Your task to perform on an android device: open app "Lyft - Rideshare, Bikes, Scooters & Transit" (install if not already installed) Image 0: 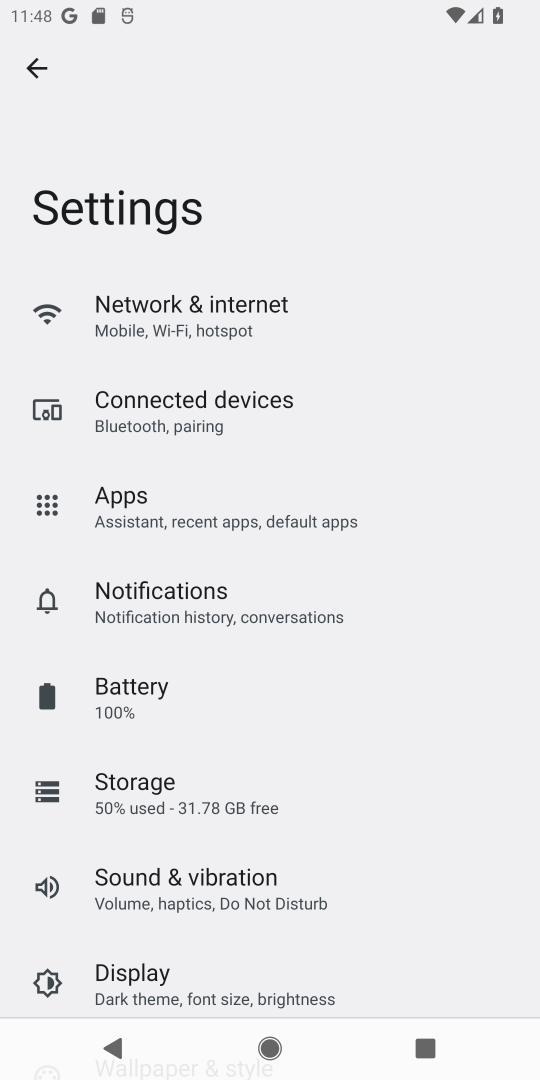
Step 0: press home button
Your task to perform on an android device: open app "Lyft - Rideshare, Bikes, Scooters & Transit" (install if not already installed) Image 1: 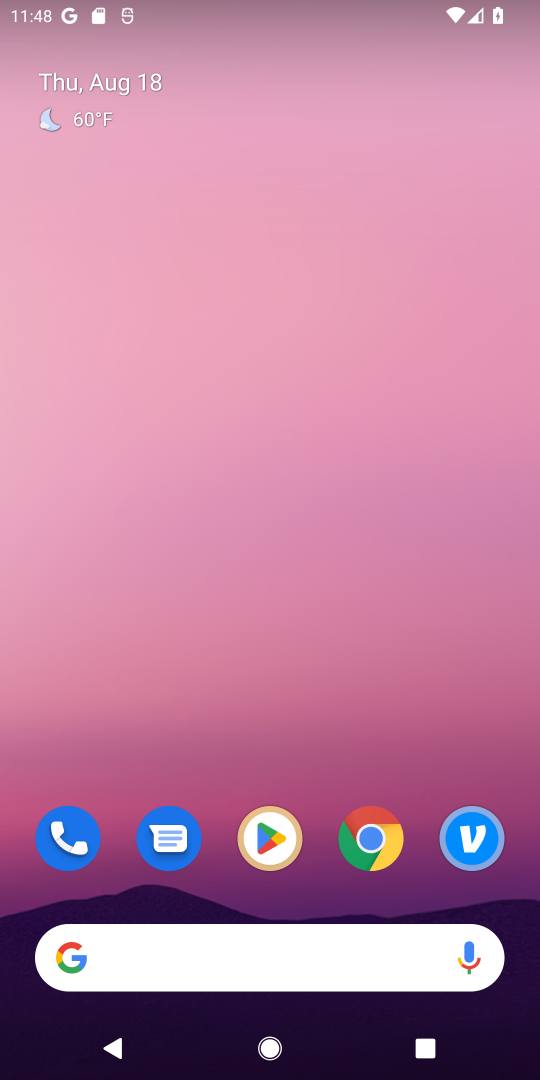
Step 1: click (275, 818)
Your task to perform on an android device: open app "Lyft - Rideshare, Bikes, Scooters & Transit" (install if not already installed) Image 2: 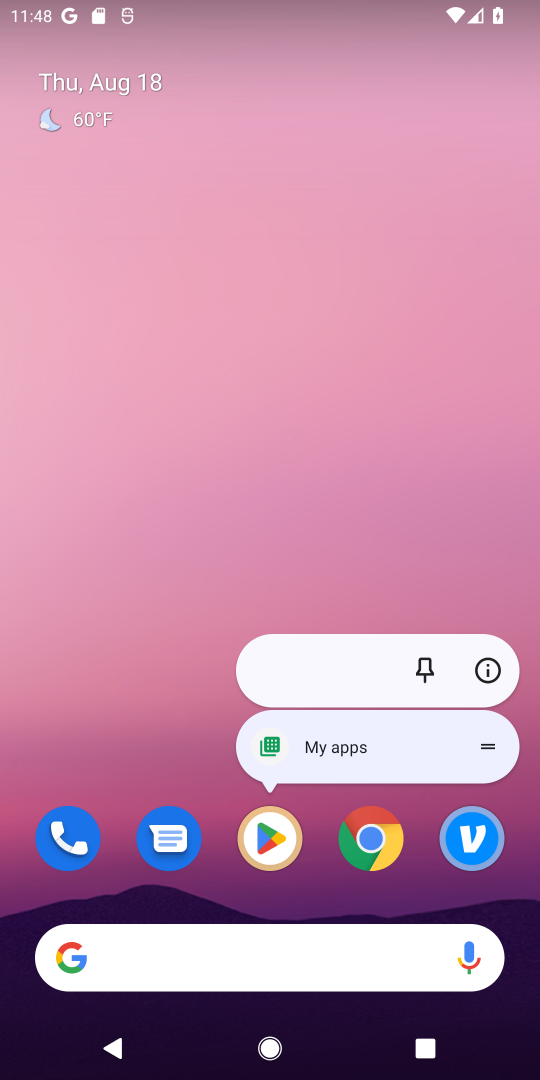
Step 2: click (283, 841)
Your task to perform on an android device: open app "Lyft - Rideshare, Bikes, Scooters & Transit" (install if not already installed) Image 3: 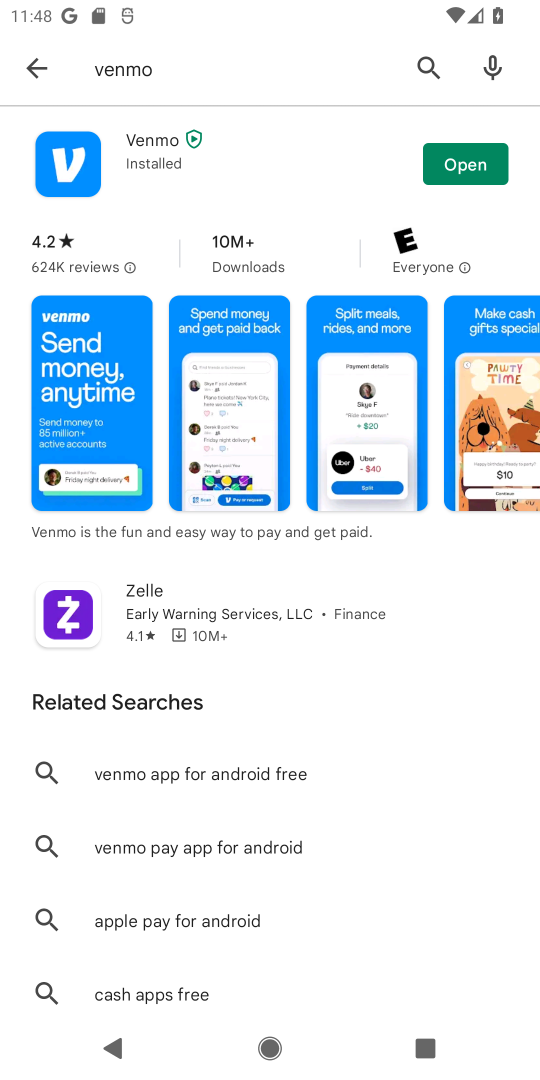
Step 3: click (477, 66)
Your task to perform on an android device: open app "Lyft - Rideshare, Bikes, Scooters & Transit" (install if not already installed) Image 4: 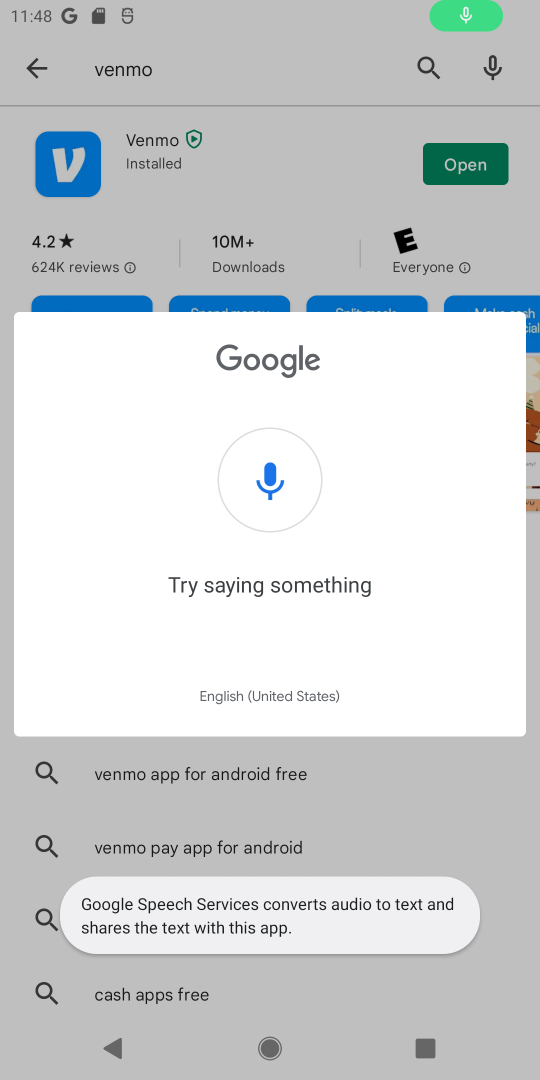
Step 4: click (431, 75)
Your task to perform on an android device: open app "Lyft - Rideshare, Bikes, Scooters & Transit" (install if not already installed) Image 5: 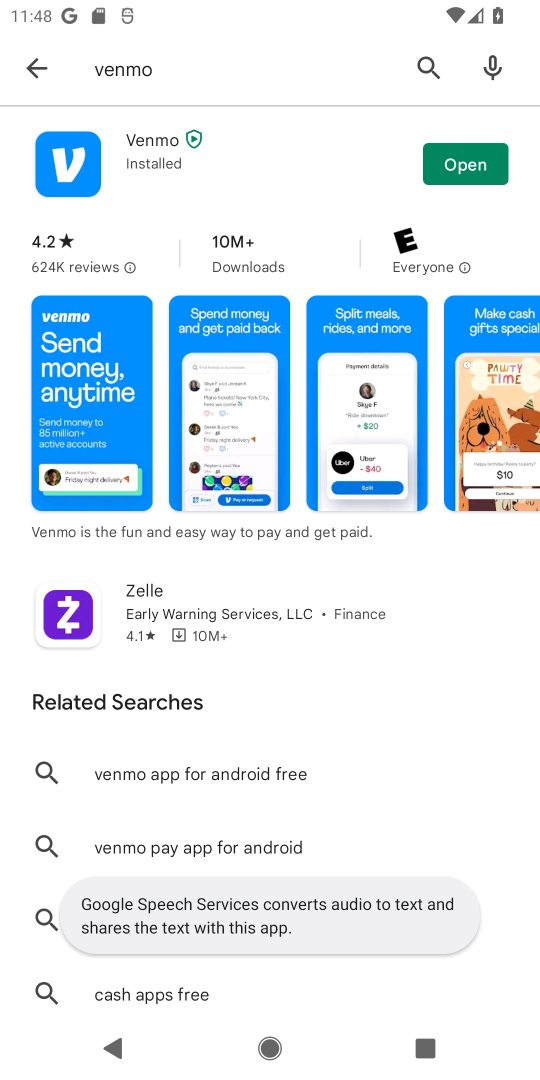
Step 5: click (430, 75)
Your task to perform on an android device: open app "Lyft - Rideshare, Bikes, Scooters & Transit" (install if not already installed) Image 6: 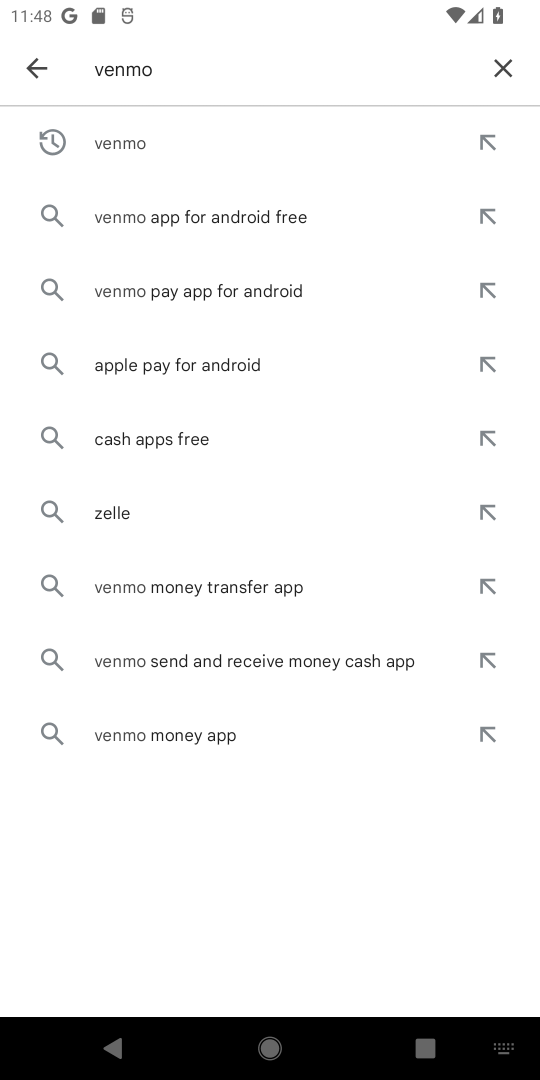
Step 6: click (499, 77)
Your task to perform on an android device: open app "Lyft - Rideshare, Bikes, Scooters & Transit" (install if not already installed) Image 7: 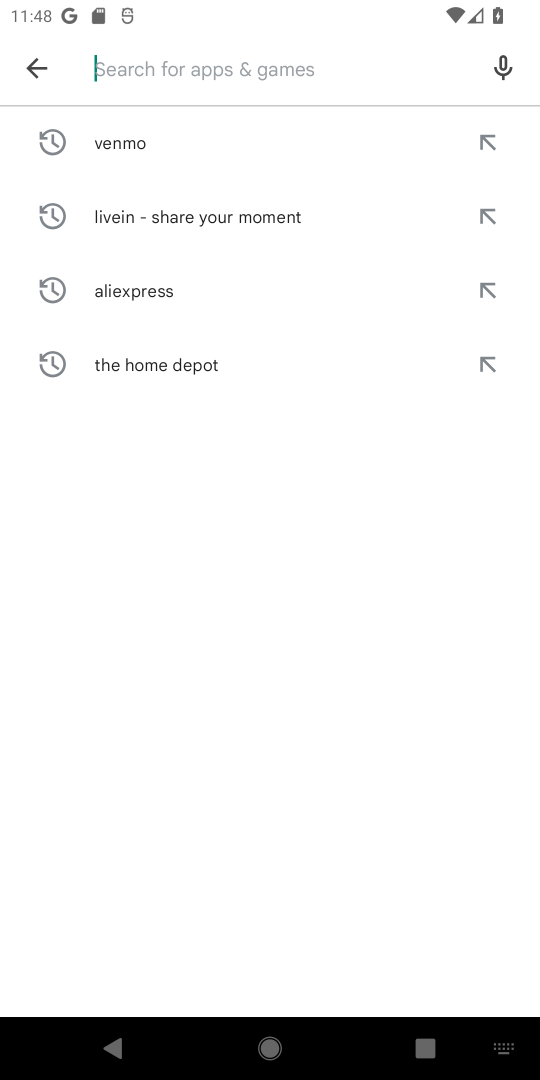
Step 7: type "Lyft - Rideshare, Bikes, Scooters & Transit"
Your task to perform on an android device: open app "Lyft - Rideshare, Bikes, Scooters & Transit" (install if not already installed) Image 8: 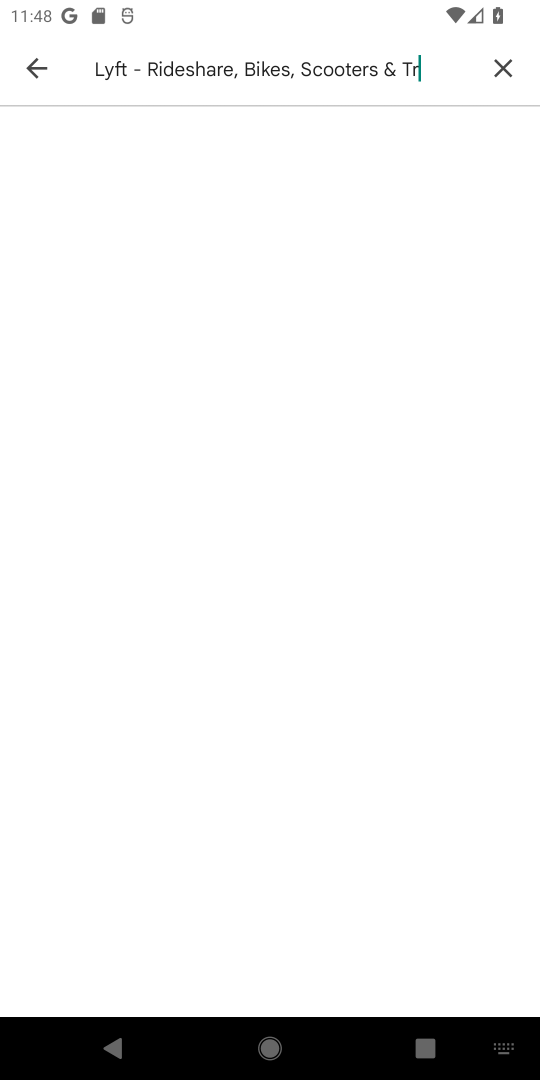
Step 8: type ""
Your task to perform on an android device: open app "Lyft - Rideshare, Bikes, Scooters & Transit" (install if not already installed) Image 9: 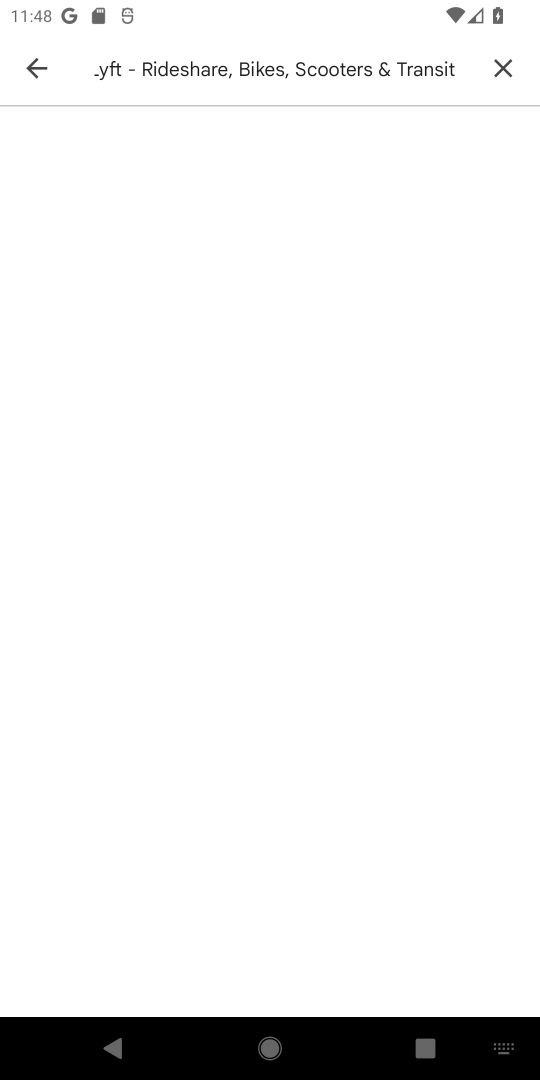
Step 9: task complete